Your task to perform on an android device: Show me popular games on the Play Store Image 0: 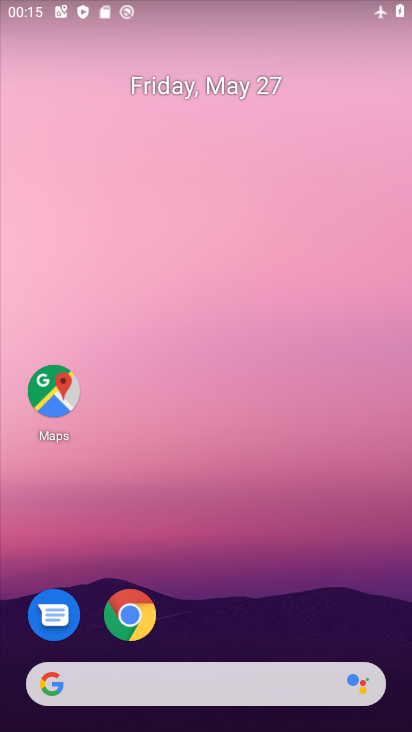
Step 0: drag from (372, 612) to (383, 247)
Your task to perform on an android device: Show me popular games on the Play Store Image 1: 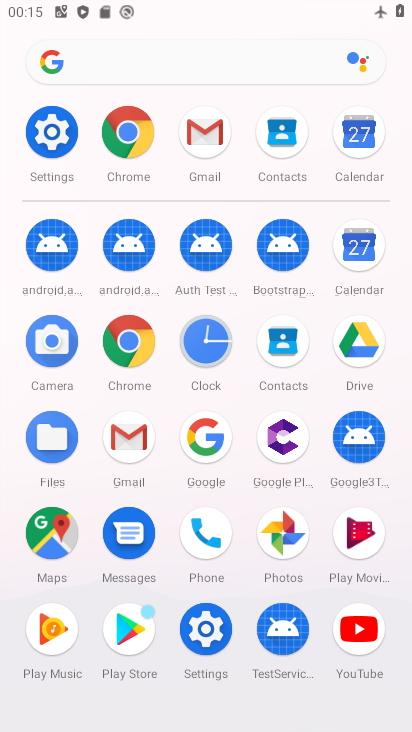
Step 1: click (110, 639)
Your task to perform on an android device: Show me popular games on the Play Store Image 2: 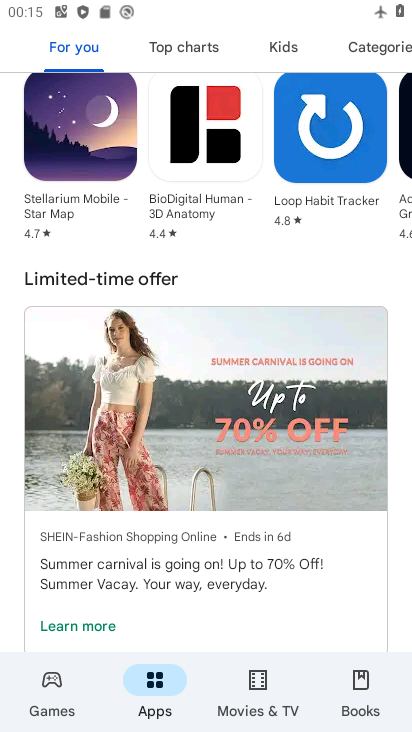
Step 2: click (46, 681)
Your task to perform on an android device: Show me popular games on the Play Store Image 3: 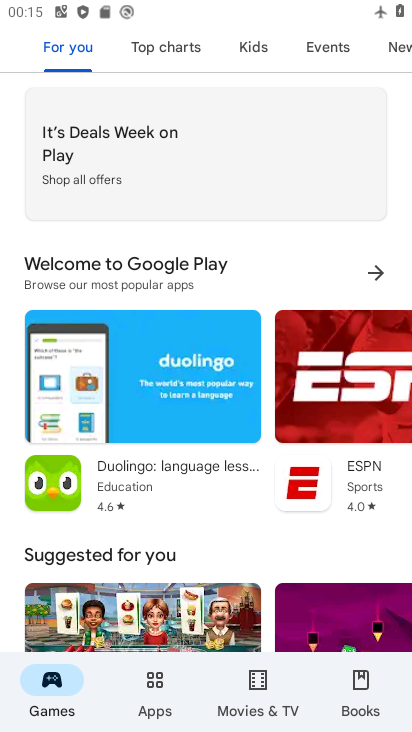
Step 3: task complete